Your task to perform on an android device: remove spam from my inbox in the gmail app Image 0: 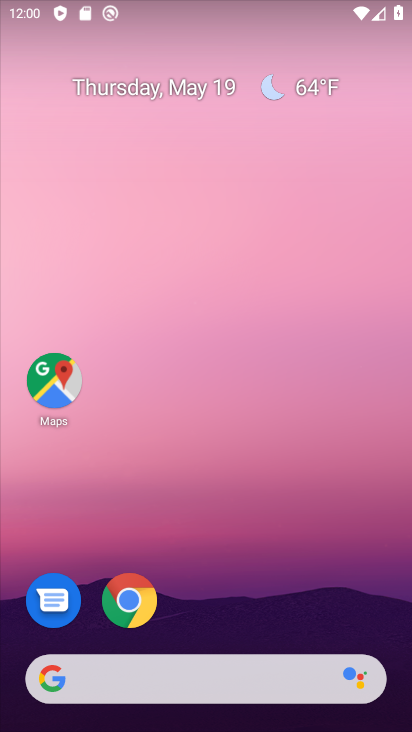
Step 0: drag from (251, 647) to (211, 112)
Your task to perform on an android device: remove spam from my inbox in the gmail app Image 1: 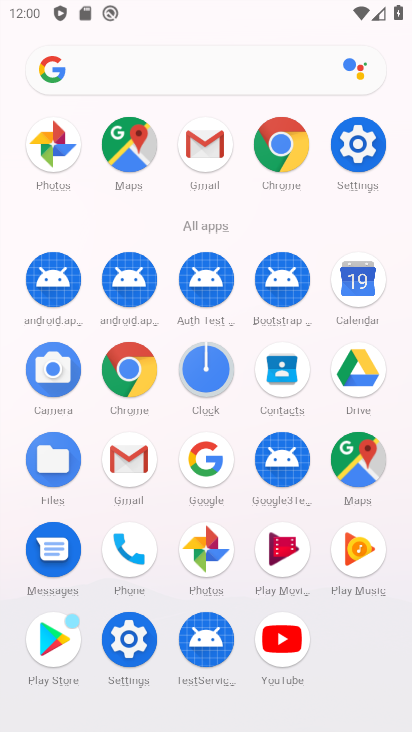
Step 1: click (131, 461)
Your task to perform on an android device: remove spam from my inbox in the gmail app Image 2: 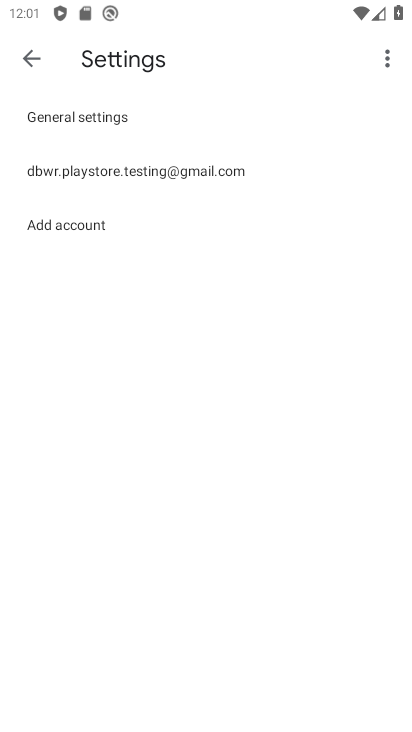
Step 2: click (26, 58)
Your task to perform on an android device: remove spam from my inbox in the gmail app Image 3: 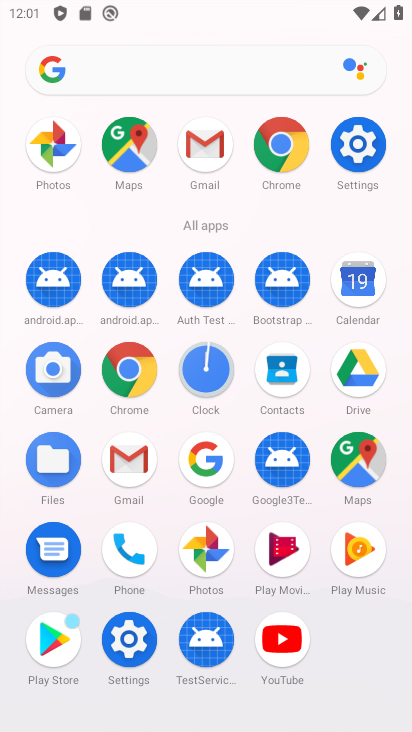
Step 3: click (137, 470)
Your task to perform on an android device: remove spam from my inbox in the gmail app Image 4: 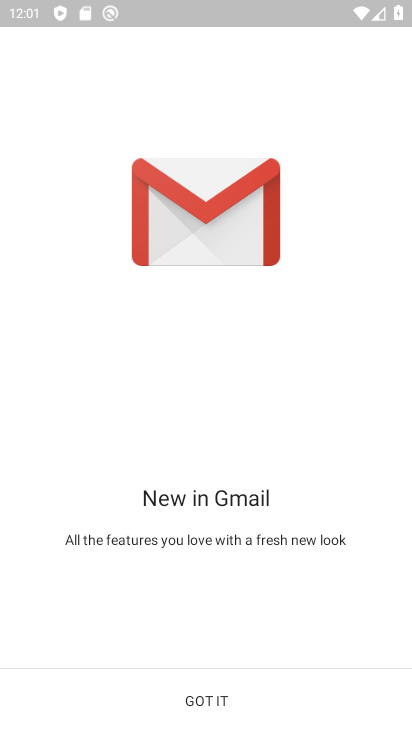
Step 4: click (195, 713)
Your task to perform on an android device: remove spam from my inbox in the gmail app Image 5: 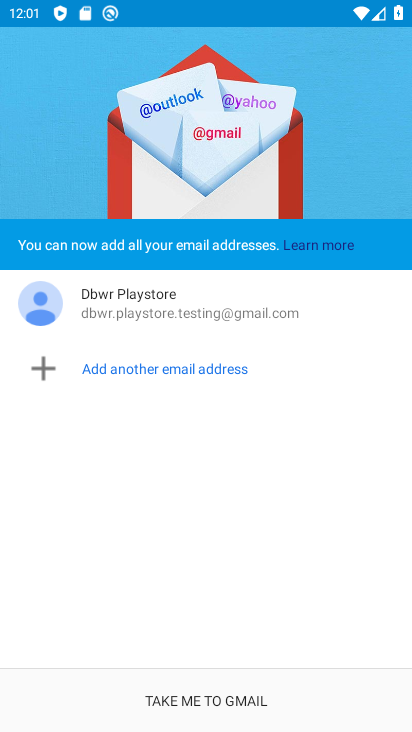
Step 5: click (196, 694)
Your task to perform on an android device: remove spam from my inbox in the gmail app Image 6: 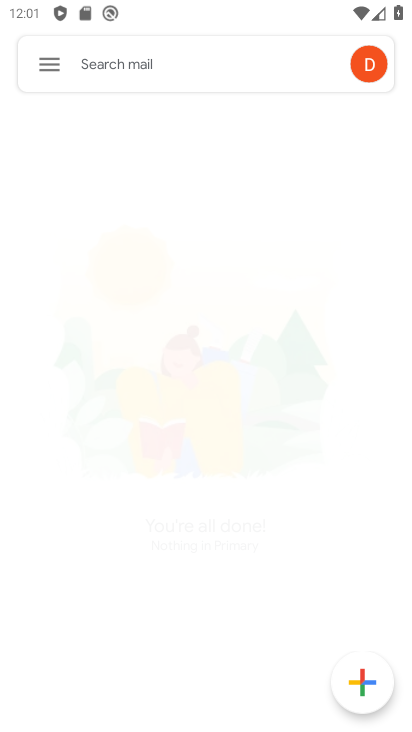
Step 6: click (36, 57)
Your task to perform on an android device: remove spam from my inbox in the gmail app Image 7: 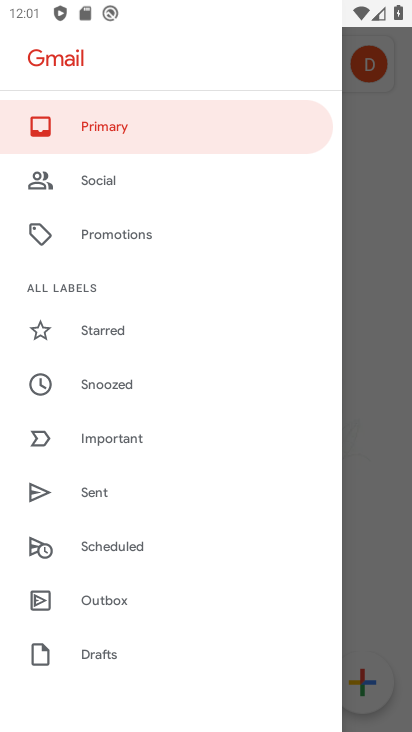
Step 7: drag from (157, 564) to (168, 216)
Your task to perform on an android device: remove spam from my inbox in the gmail app Image 8: 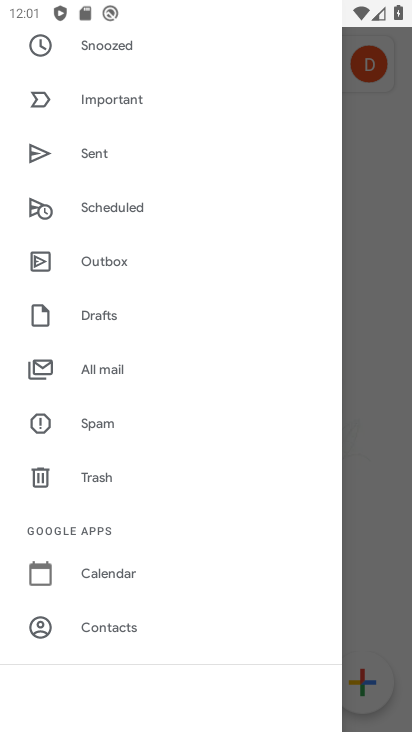
Step 8: click (99, 433)
Your task to perform on an android device: remove spam from my inbox in the gmail app Image 9: 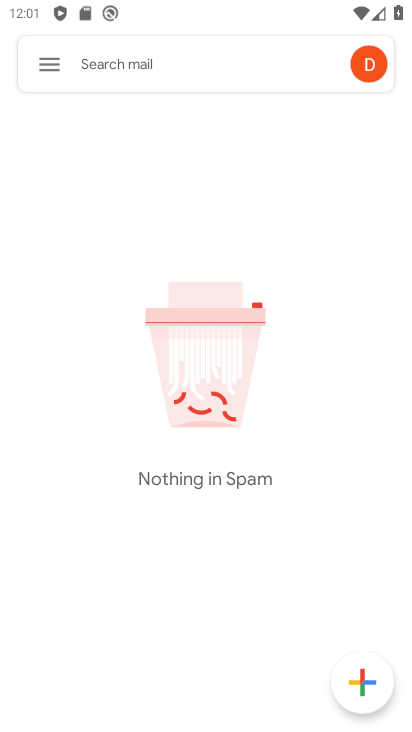
Step 9: task complete